Your task to perform on an android device: open app "Fetch Rewards" (install if not already installed) Image 0: 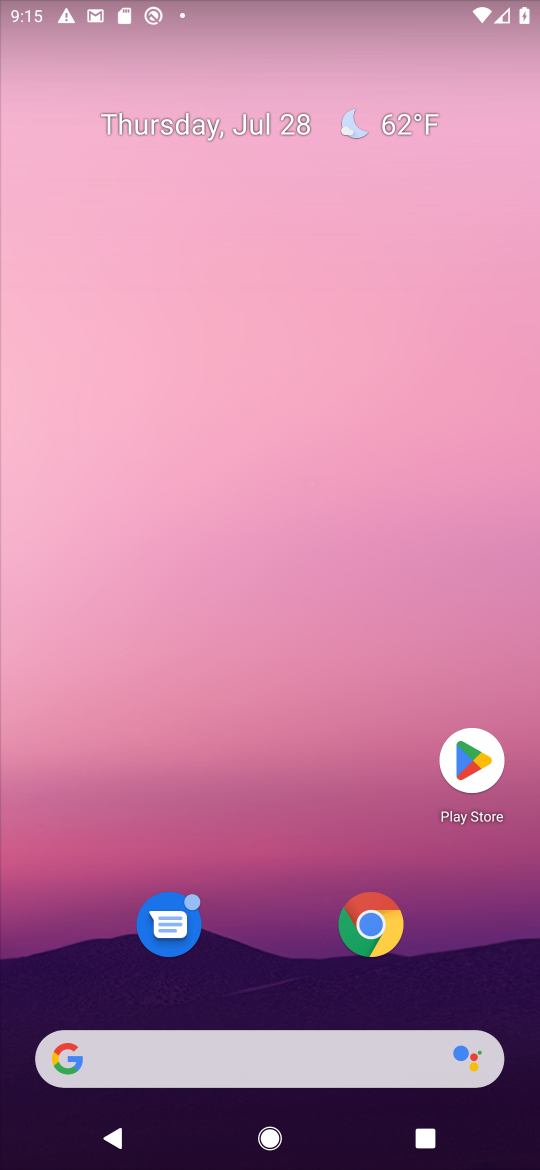
Step 0: click (481, 762)
Your task to perform on an android device: open app "Fetch Rewards" (install if not already installed) Image 1: 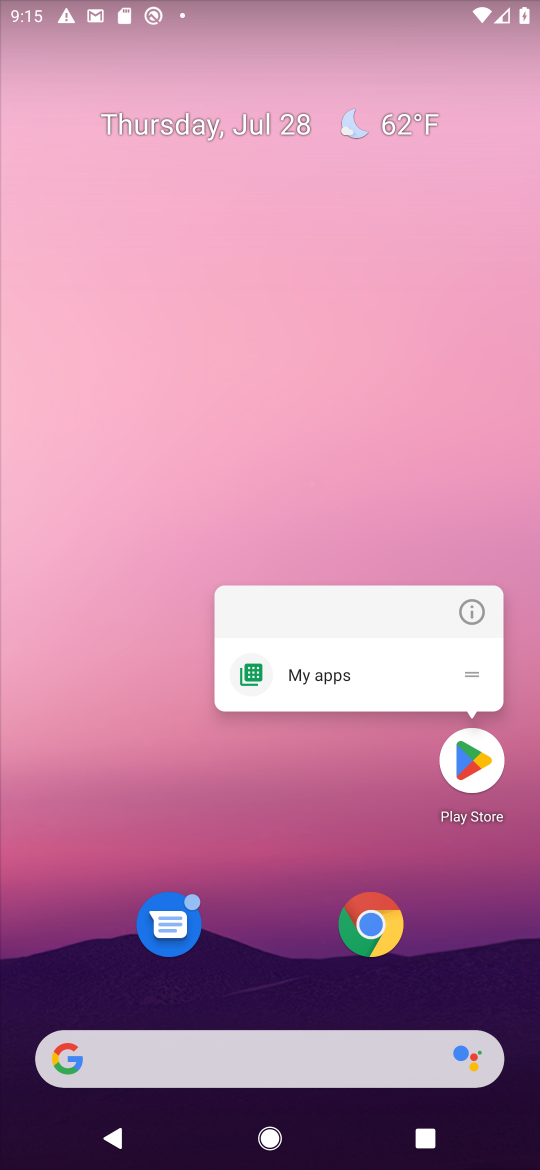
Step 1: click (481, 762)
Your task to perform on an android device: open app "Fetch Rewards" (install if not already installed) Image 2: 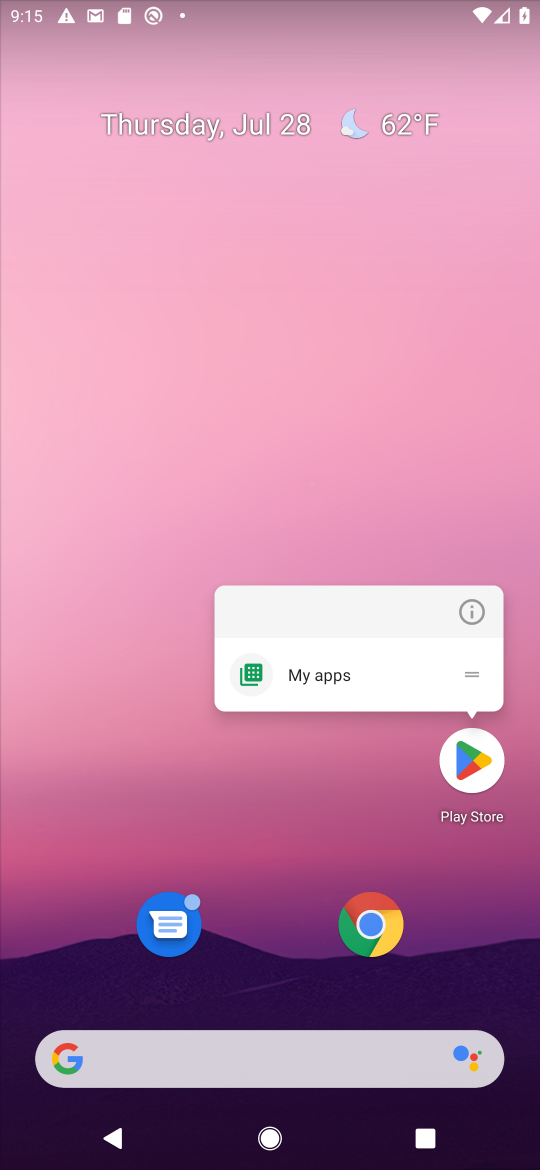
Step 2: click (478, 762)
Your task to perform on an android device: open app "Fetch Rewards" (install if not already installed) Image 3: 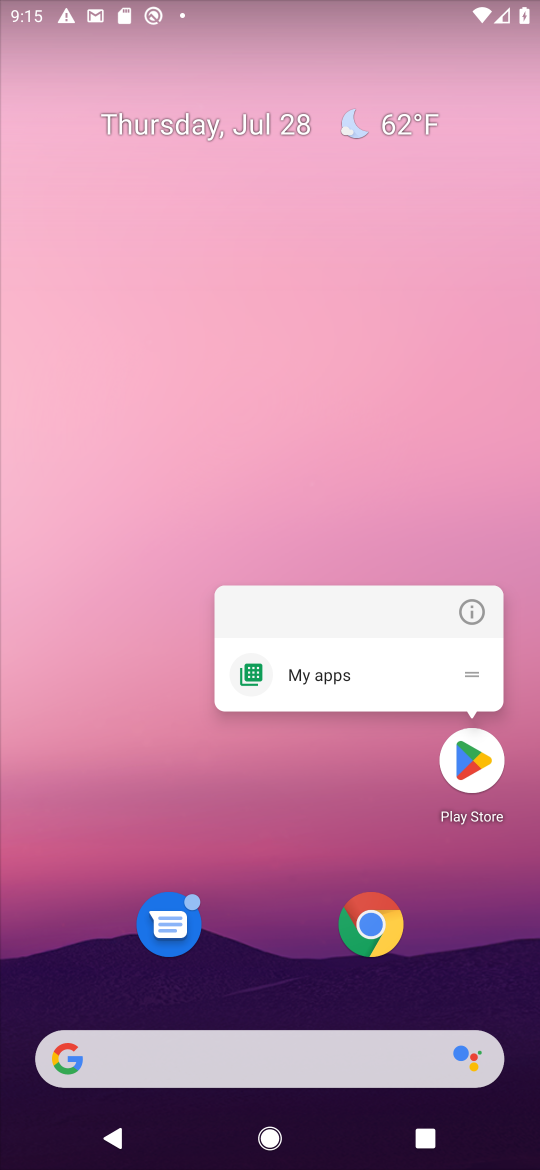
Step 3: click (478, 766)
Your task to perform on an android device: open app "Fetch Rewards" (install if not already installed) Image 4: 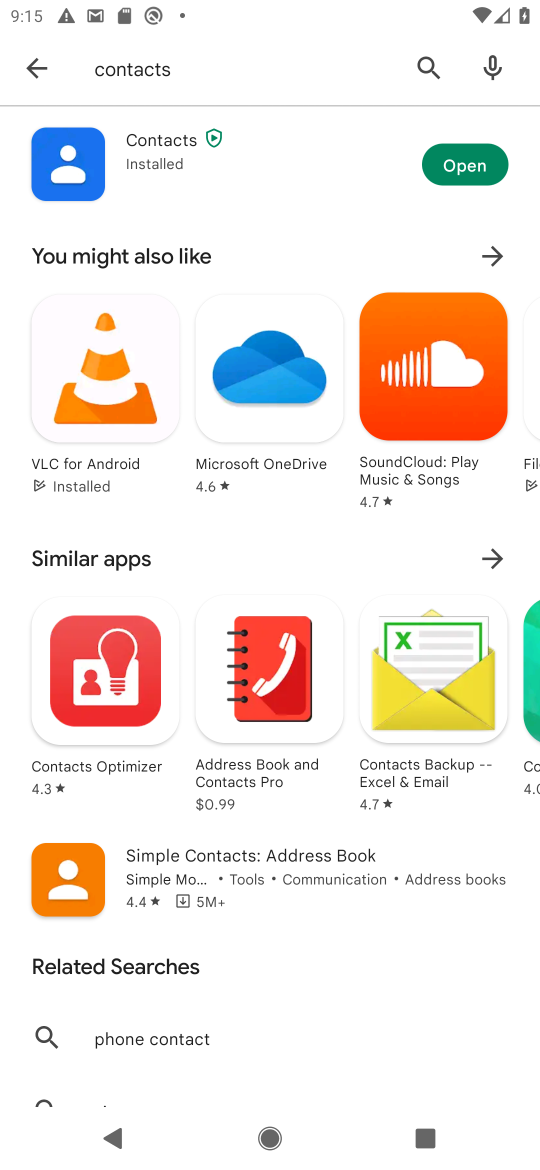
Step 4: click (421, 58)
Your task to perform on an android device: open app "Fetch Rewards" (install if not already installed) Image 5: 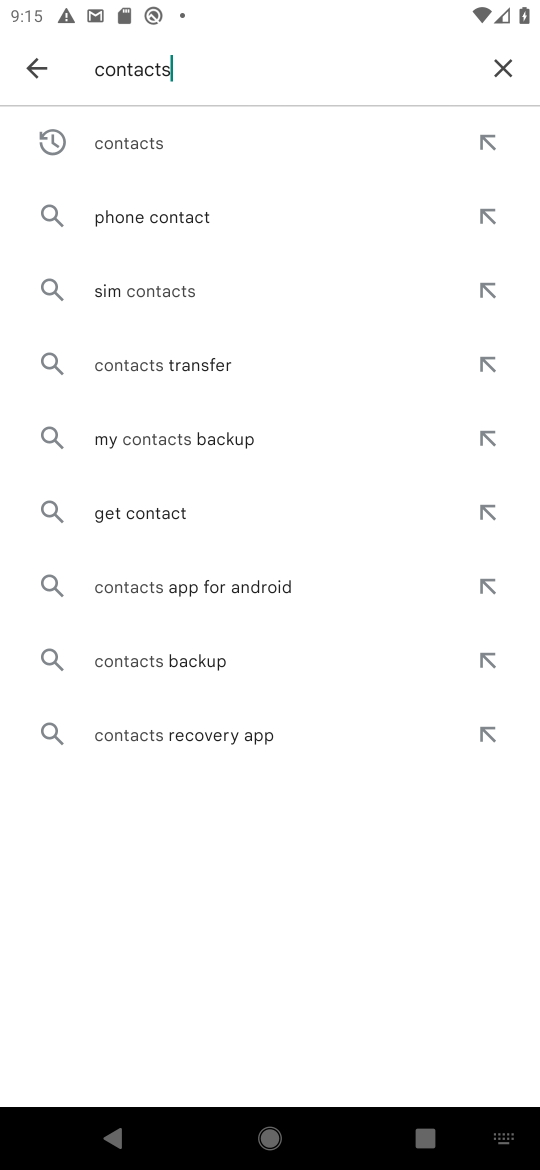
Step 5: click (500, 65)
Your task to perform on an android device: open app "Fetch Rewards" (install if not already installed) Image 6: 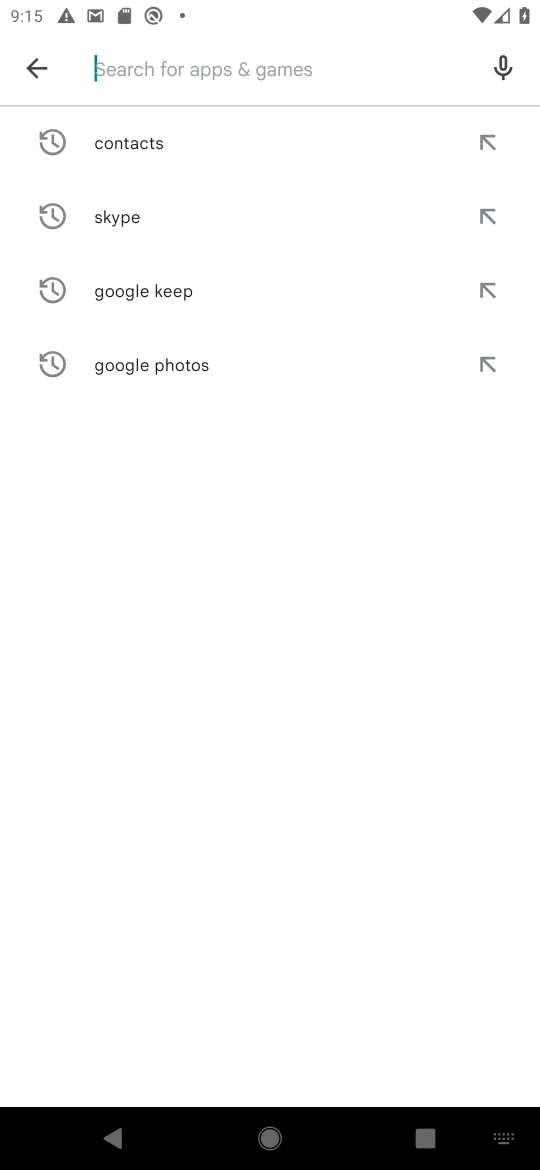
Step 6: type "Fetch Rewards"
Your task to perform on an android device: open app "Fetch Rewards" (install if not already installed) Image 7: 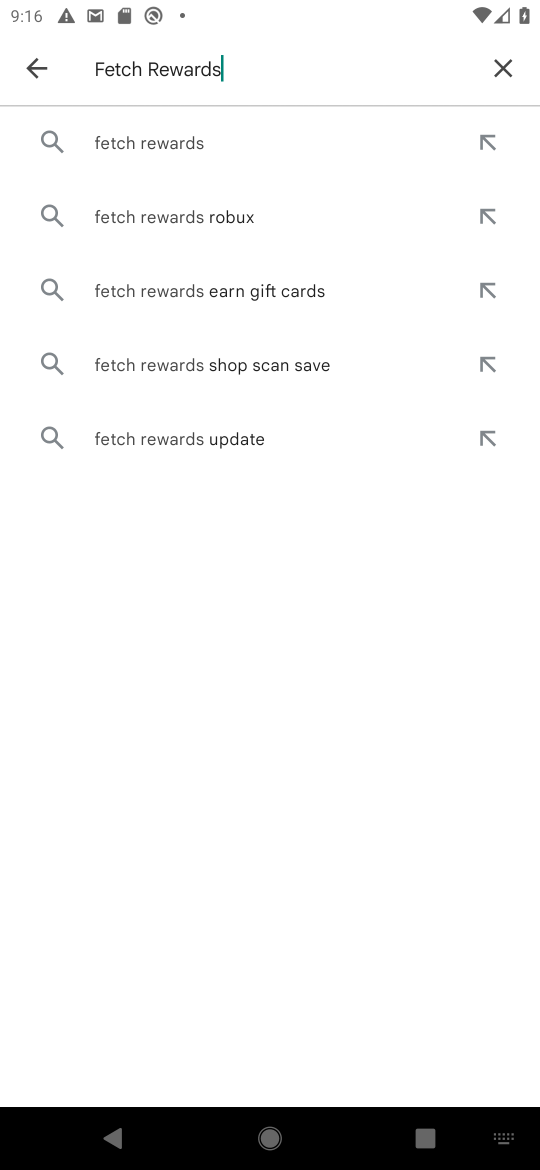
Step 7: click (98, 144)
Your task to perform on an android device: open app "Fetch Rewards" (install if not already installed) Image 8: 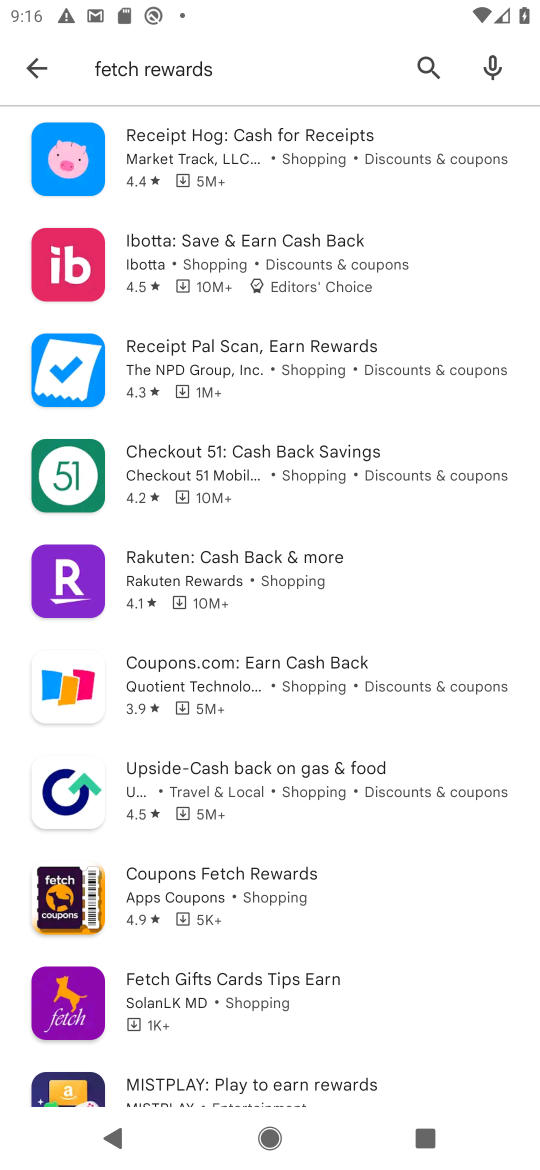
Step 8: task complete